Your task to perform on an android device: Open calendar and show me the second week of next month Image 0: 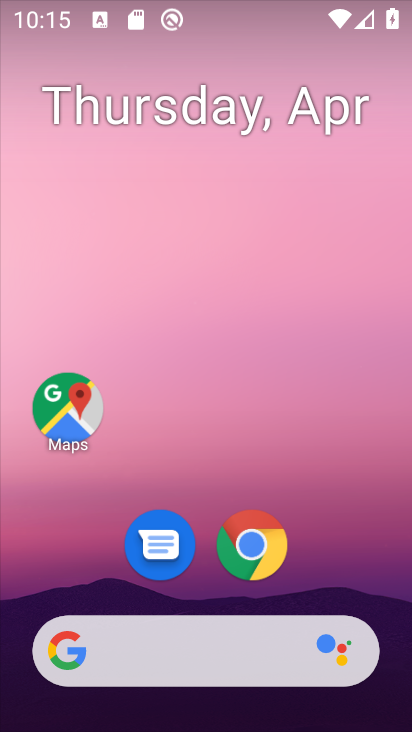
Step 0: drag from (50, 560) to (328, 151)
Your task to perform on an android device: Open calendar and show me the second week of next month Image 1: 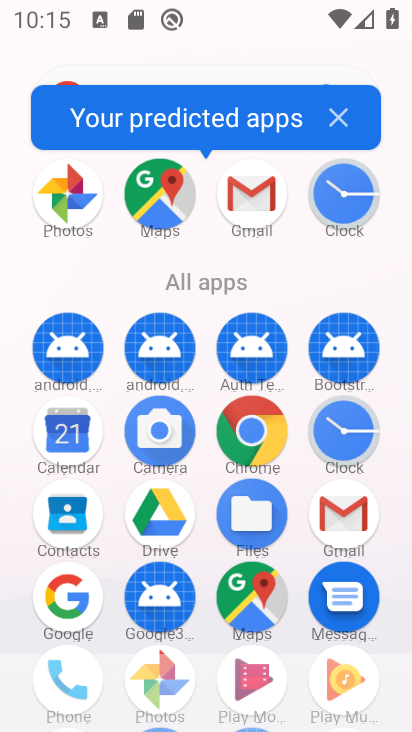
Step 1: click (64, 438)
Your task to perform on an android device: Open calendar and show me the second week of next month Image 2: 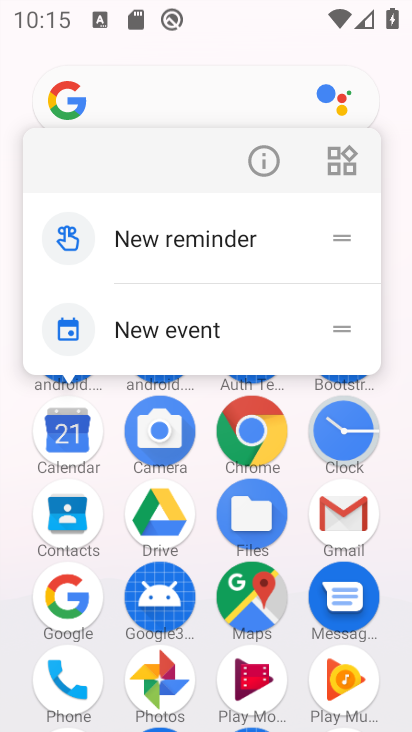
Step 2: click (270, 169)
Your task to perform on an android device: Open calendar and show me the second week of next month Image 3: 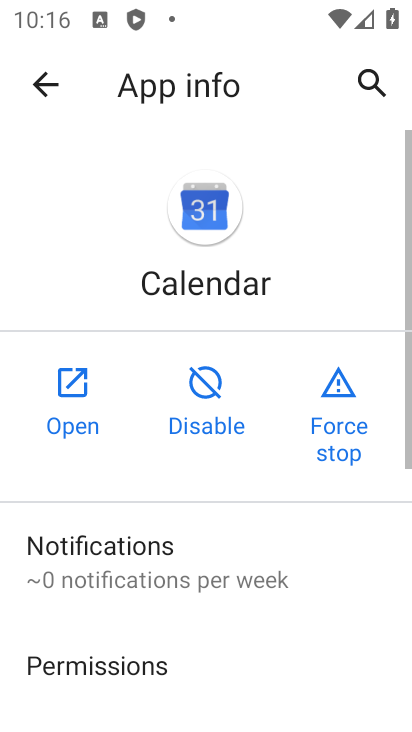
Step 3: click (88, 382)
Your task to perform on an android device: Open calendar and show me the second week of next month Image 4: 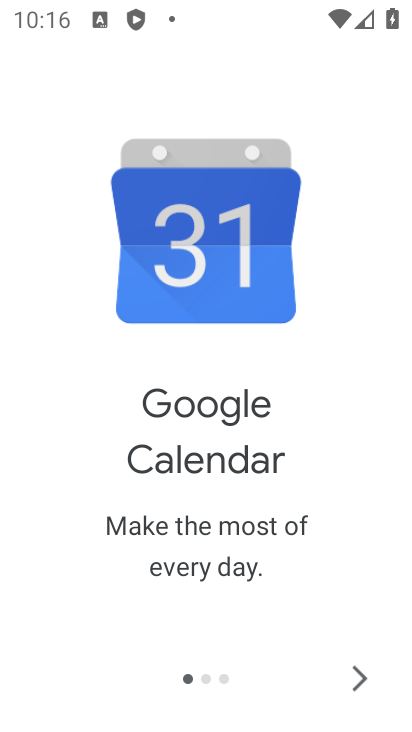
Step 4: click (363, 672)
Your task to perform on an android device: Open calendar and show me the second week of next month Image 5: 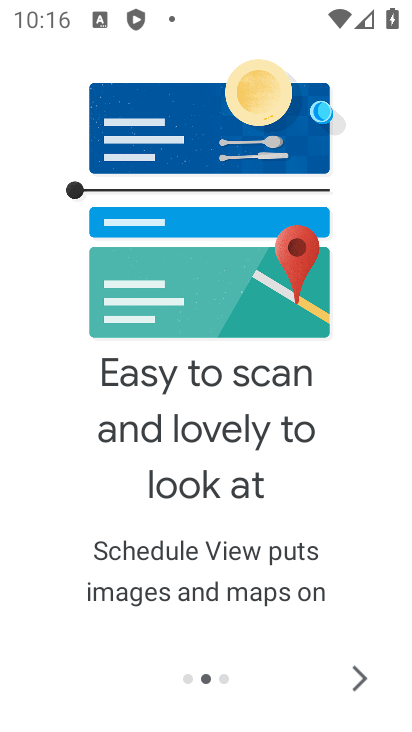
Step 5: click (362, 669)
Your task to perform on an android device: Open calendar and show me the second week of next month Image 6: 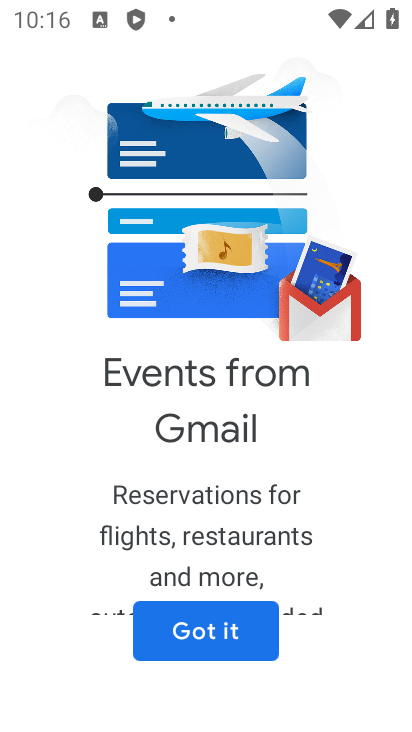
Step 6: click (195, 646)
Your task to perform on an android device: Open calendar and show me the second week of next month Image 7: 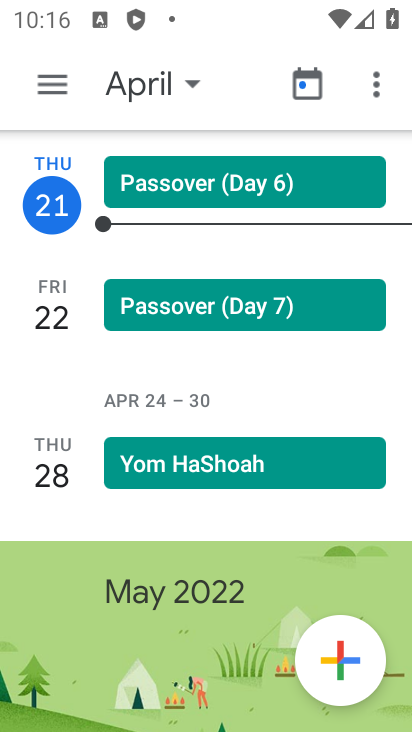
Step 7: click (167, 80)
Your task to perform on an android device: Open calendar and show me the second week of next month Image 8: 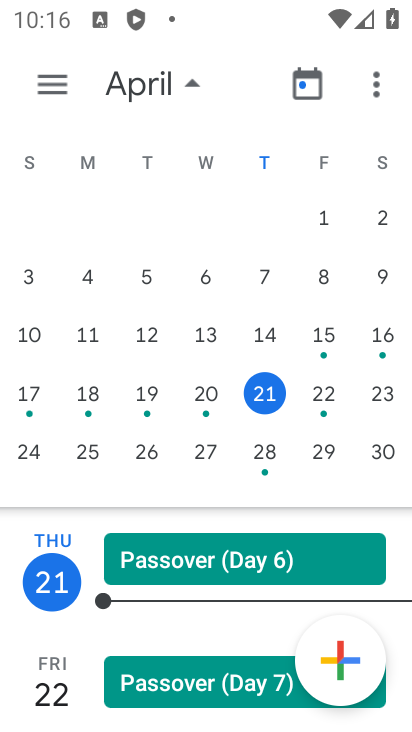
Step 8: drag from (372, 285) to (4, 259)
Your task to perform on an android device: Open calendar and show me the second week of next month Image 9: 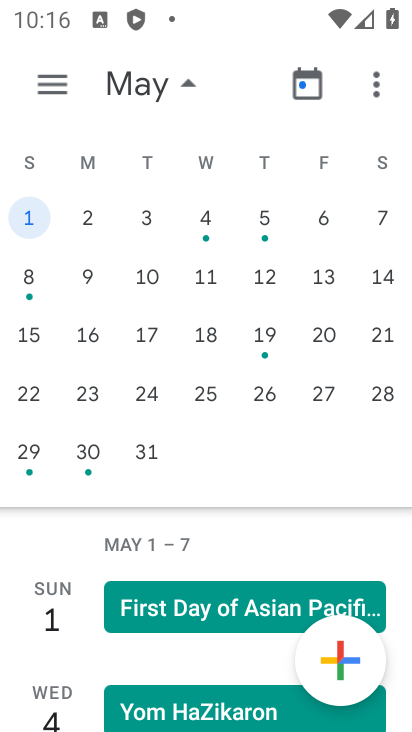
Step 9: click (28, 282)
Your task to perform on an android device: Open calendar and show me the second week of next month Image 10: 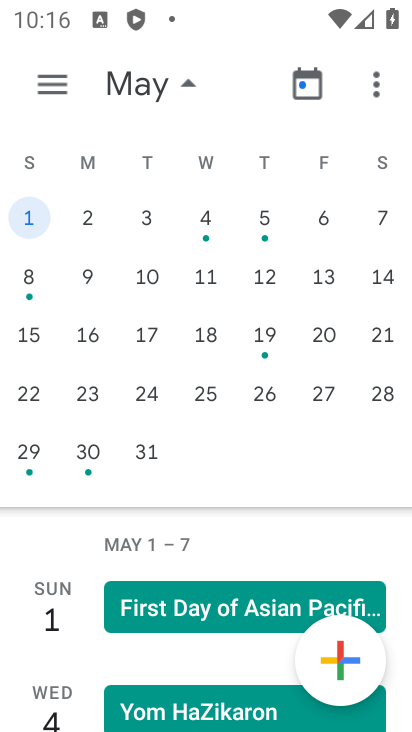
Step 10: click (28, 278)
Your task to perform on an android device: Open calendar and show me the second week of next month Image 11: 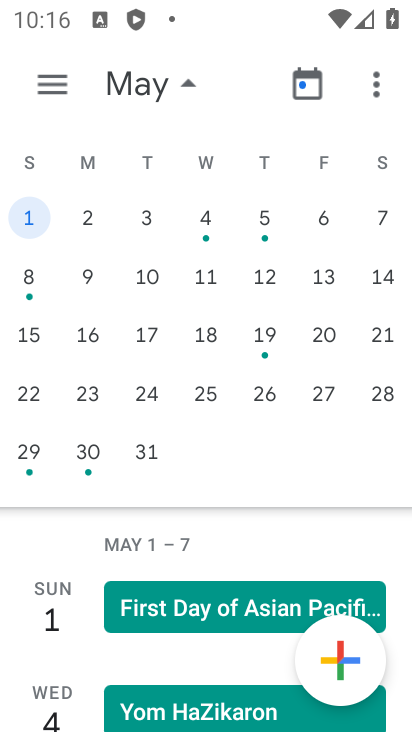
Step 11: click (89, 282)
Your task to perform on an android device: Open calendar and show me the second week of next month Image 12: 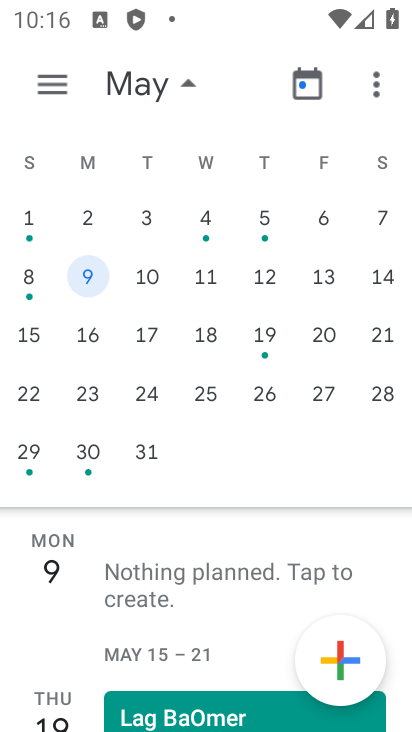
Step 12: click (153, 275)
Your task to perform on an android device: Open calendar and show me the second week of next month Image 13: 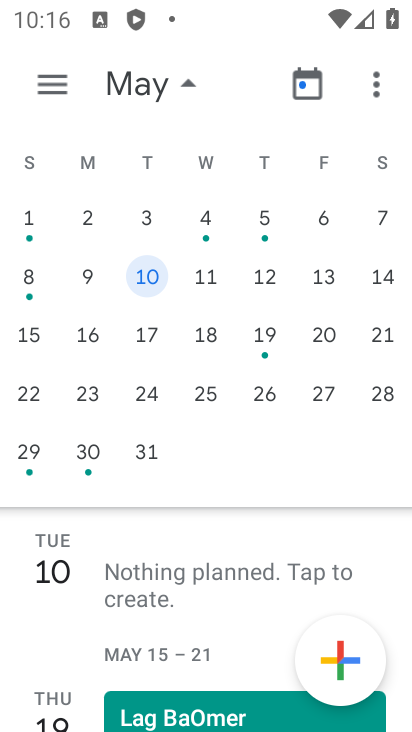
Step 13: click (211, 269)
Your task to perform on an android device: Open calendar and show me the second week of next month Image 14: 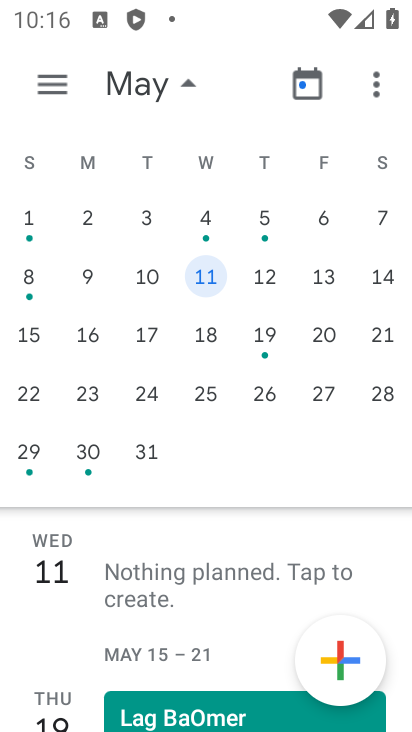
Step 14: click (269, 272)
Your task to perform on an android device: Open calendar and show me the second week of next month Image 15: 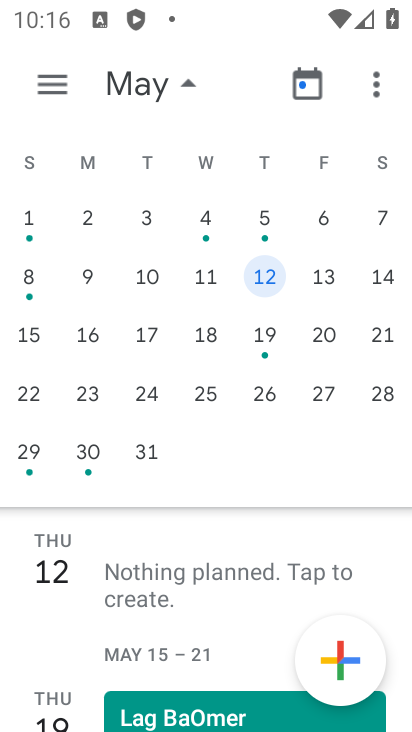
Step 15: click (329, 279)
Your task to perform on an android device: Open calendar and show me the second week of next month Image 16: 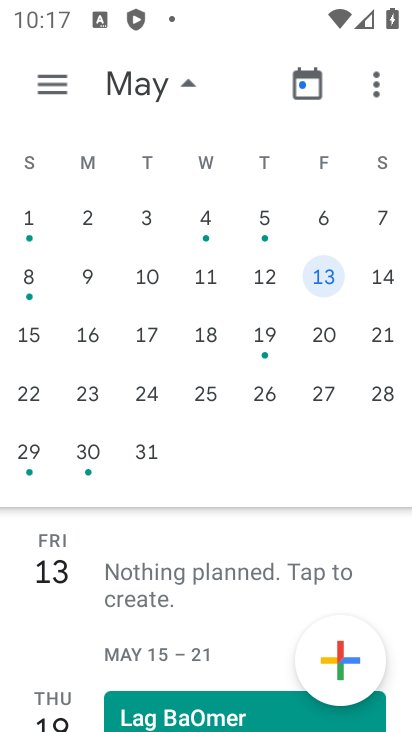
Step 16: task complete